Your task to perform on an android device: Go to Yahoo.com Image 0: 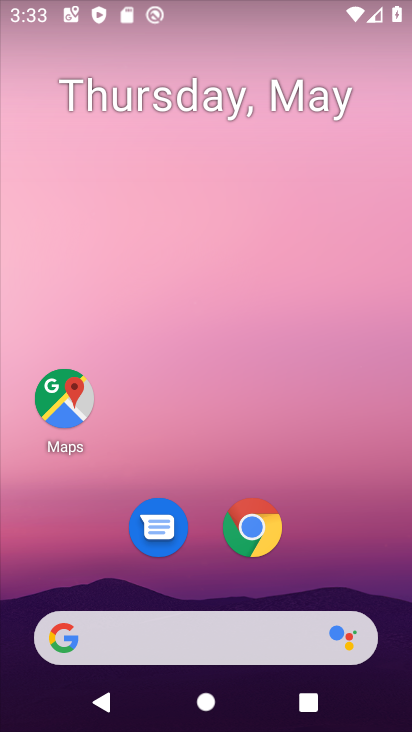
Step 0: click (259, 530)
Your task to perform on an android device: Go to Yahoo.com Image 1: 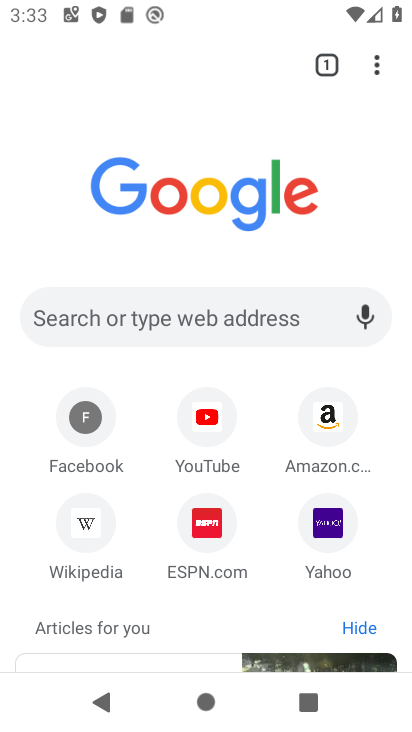
Step 1: click (141, 307)
Your task to perform on an android device: Go to Yahoo.com Image 2: 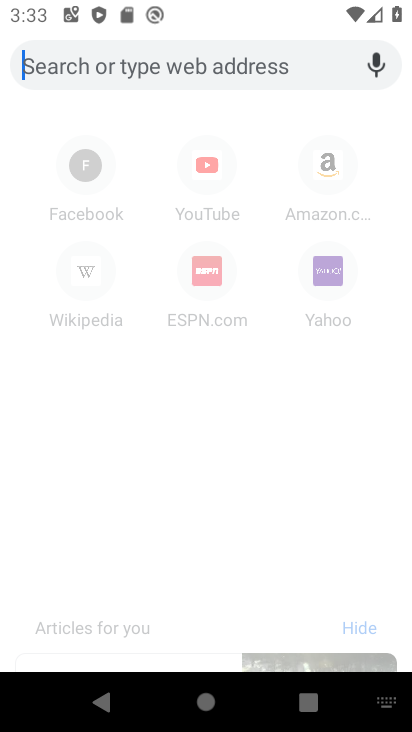
Step 2: type "yahoo.com"
Your task to perform on an android device: Go to Yahoo.com Image 3: 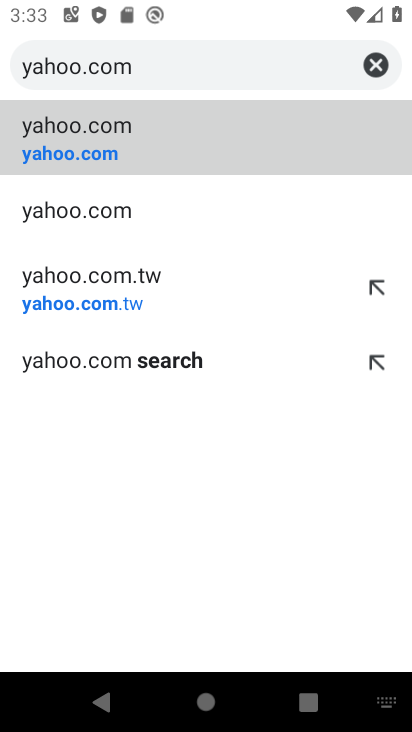
Step 3: click (90, 113)
Your task to perform on an android device: Go to Yahoo.com Image 4: 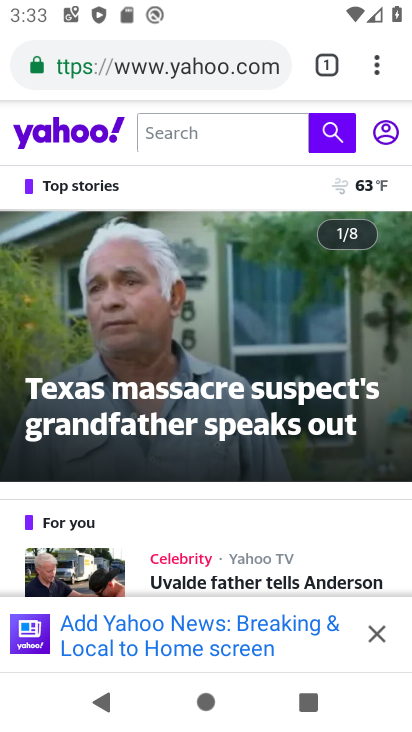
Step 4: task complete